Your task to perform on an android device: Search for vegetarian restaurants on Maps Image 0: 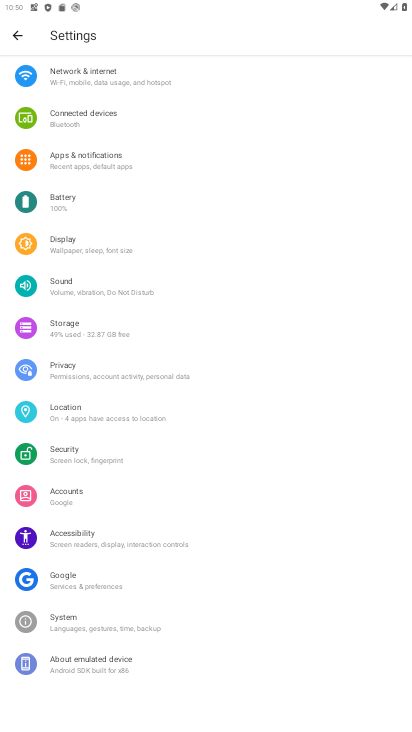
Step 0: press home button
Your task to perform on an android device: Search for vegetarian restaurants on Maps Image 1: 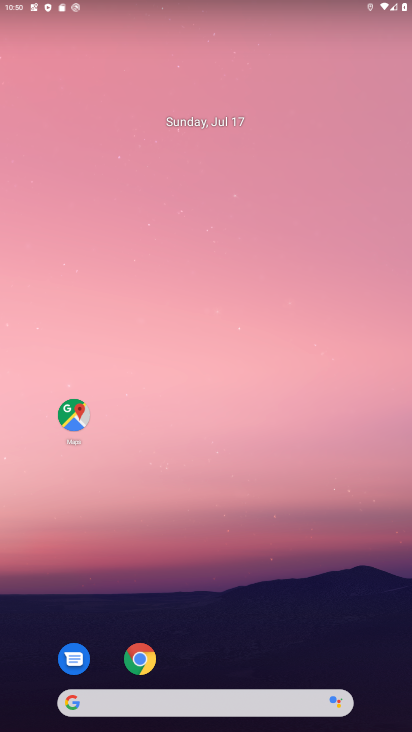
Step 1: click (71, 413)
Your task to perform on an android device: Search for vegetarian restaurants on Maps Image 2: 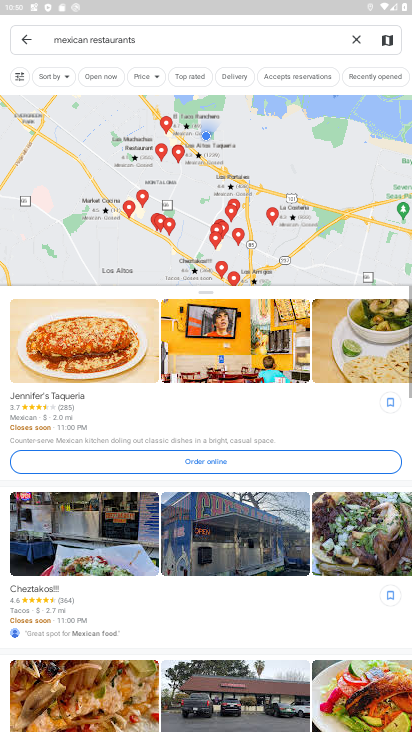
Step 2: click (282, 33)
Your task to perform on an android device: Search for vegetarian restaurants on Maps Image 3: 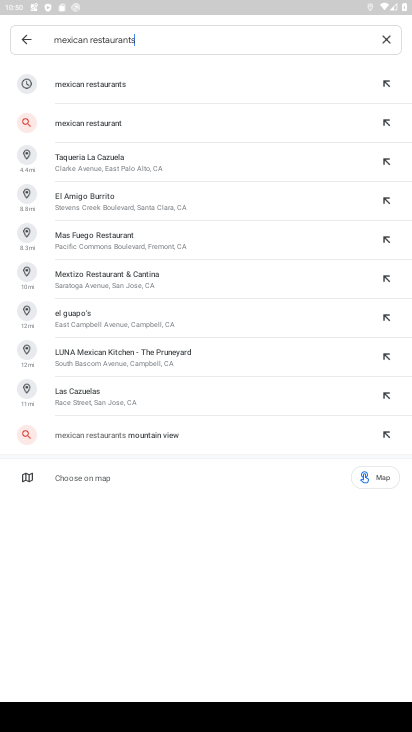
Step 3: click (385, 38)
Your task to perform on an android device: Search for vegetarian restaurants on Maps Image 4: 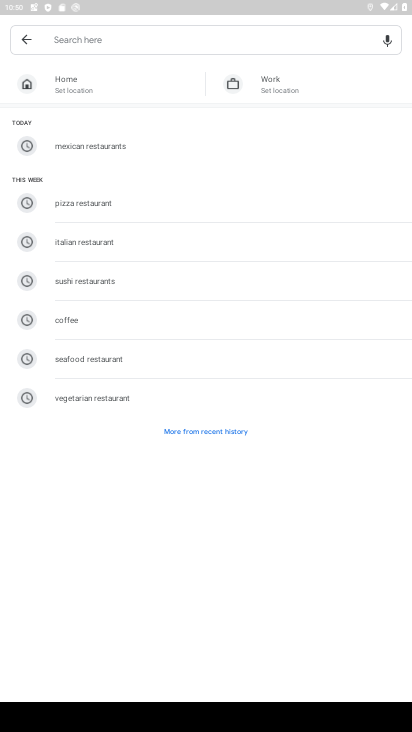
Step 4: type "vegetarian restaurants"
Your task to perform on an android device: Search for vegetarian restaurants on Maps Image 5: 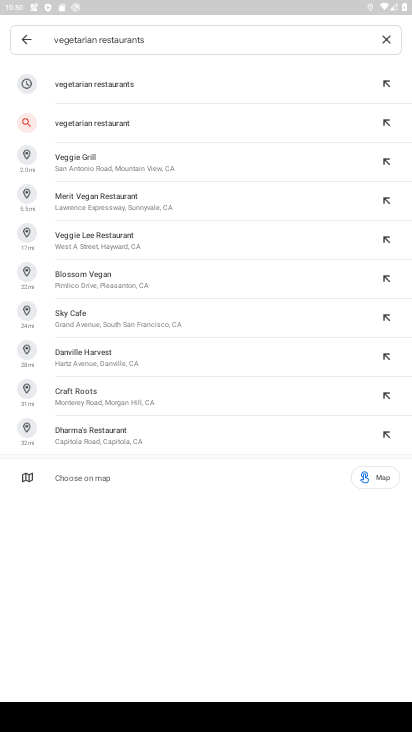
Step 5: click (88, 81)
Your task to perform on an android device: Search for vegetarian restaurants on Maps Image 6: 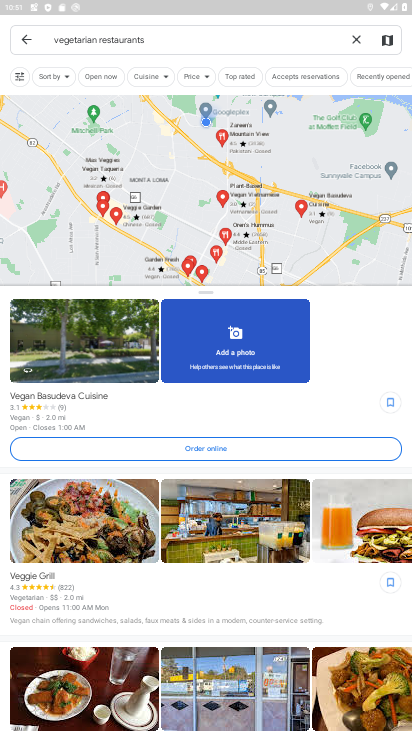
Step 6: task complete